Your task to perform on an android device: Open network settings Image 0: 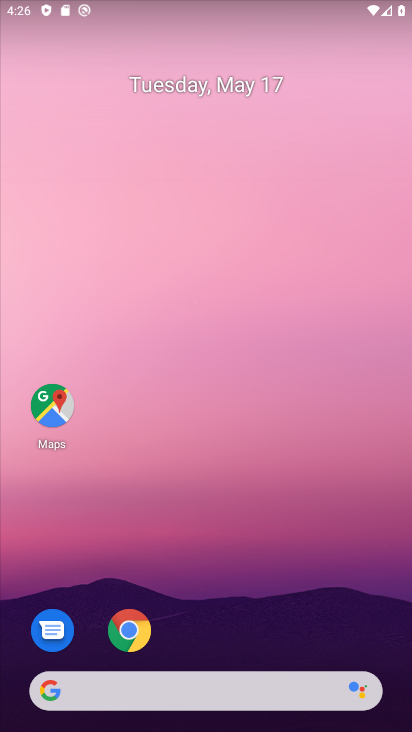
Step 0: drag from (251, 577) to (249, 105)
Your task to perform on an android device: Open network settings Image 1: 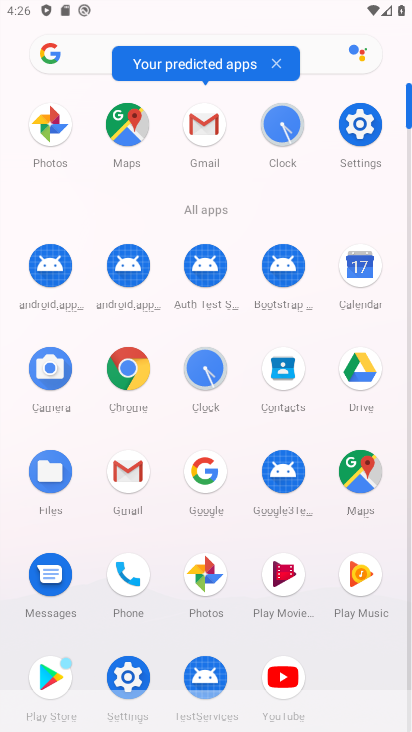
Step 1: click (355, 130)
Your task to perform on an android device: Open network settings Image 2: 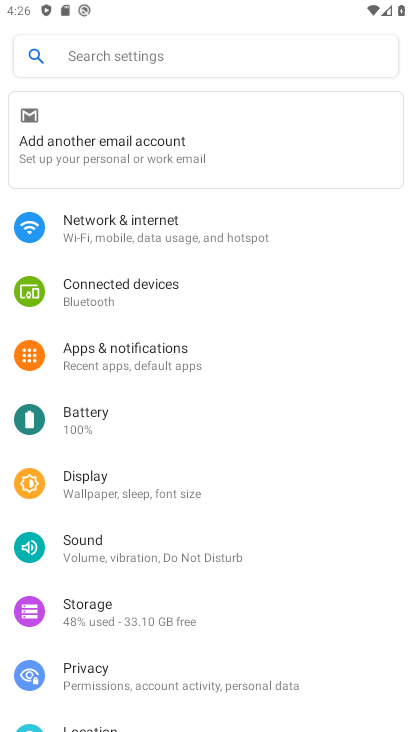
Step 2: click (129, 232)
Your task to perform on an android device: Open network settings Image 3: 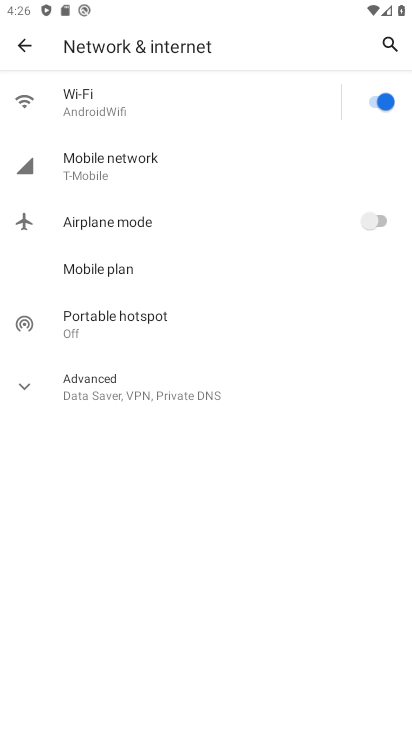
Step 3: task complete